Your task to perform on an android device: Open Android settings Image 0: 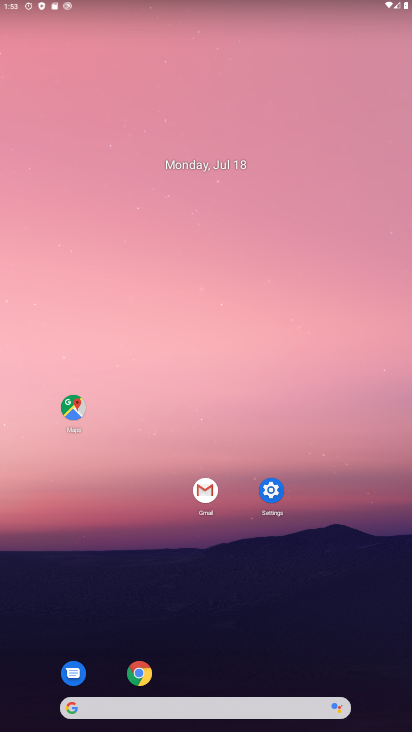
Step 0: press home button
Your task to perform on an android device: Open Android settings Image 1: 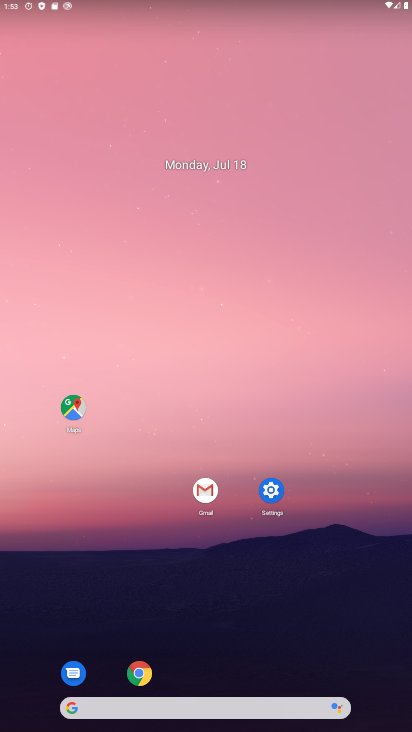
Step 1: click (269, 503)
Your task to perform on an android device: Open Android settings Image 2: 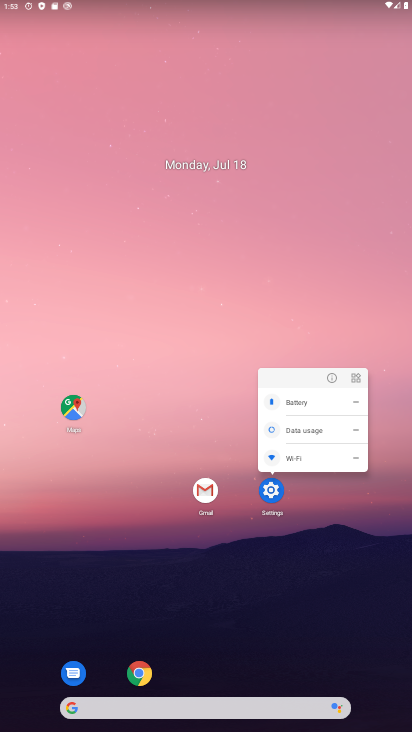
Step 2: click (273, 491)
Your task to perform on an android device: Open Android settings Image 3: 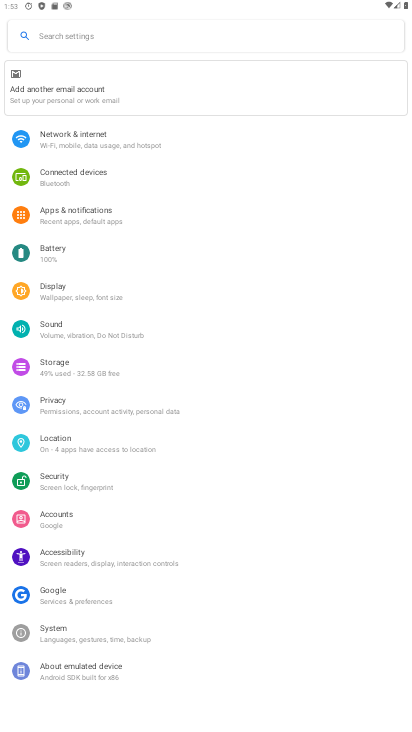
Step 3: click (85, 36)
Your task to perform on an android device: Open Android settings Image 4: 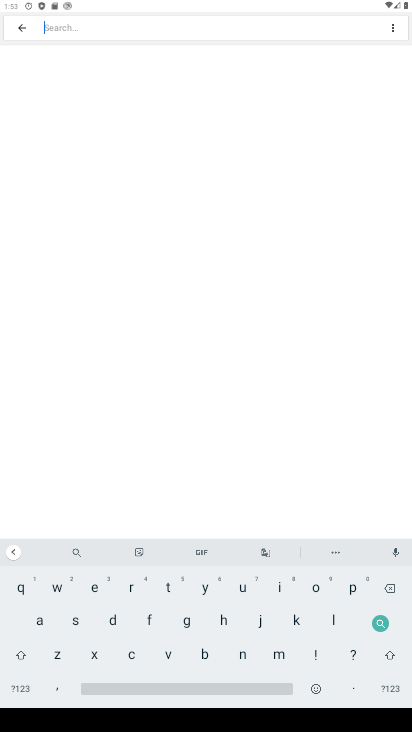
Step 4: click (33, 624)
Your task to perform on an android device: Open Android settings Image 5: 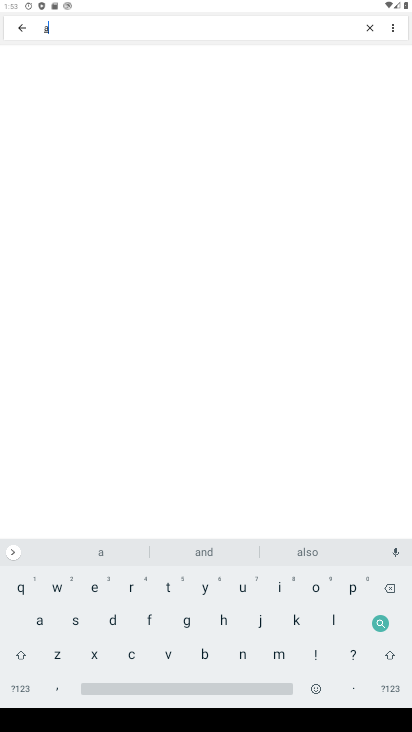
Step 5: click (243, 648)
Your task to perform on an android device: Open Android settings Image 6: 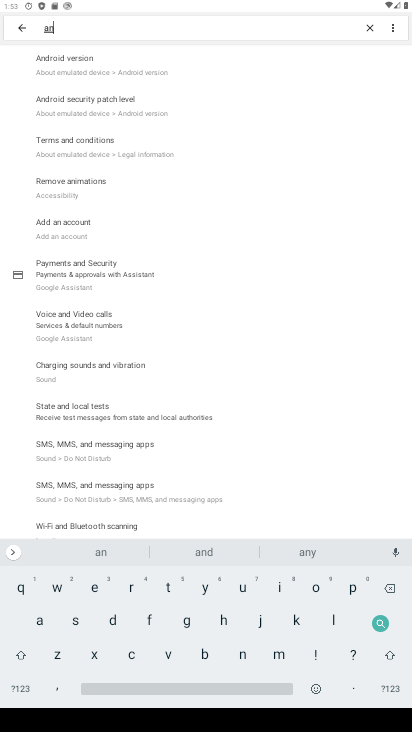
Step 6: click (124, 64)
Your task to perform on an android device: Open Android settings Image 7: 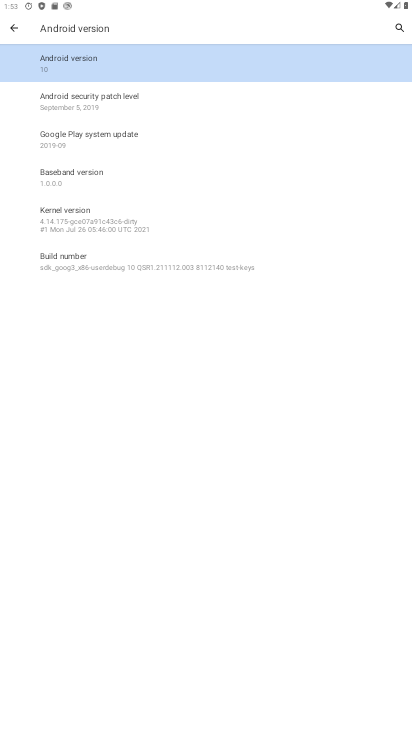
Step 7: click (92, 54)
Your task to perform on an android device: Open Android settings Image 8: 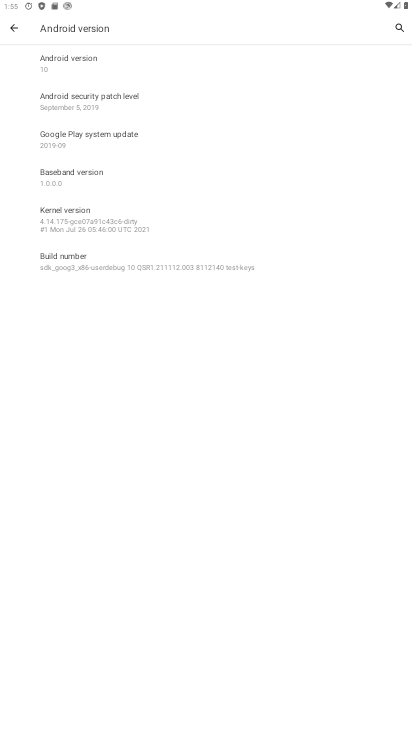
Step 8: click (104, 73)
Your task to perform on an android device: Open Android settings Image 9: 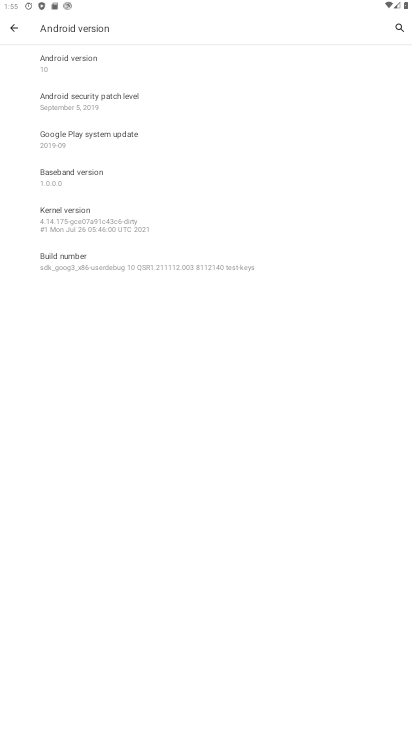
Step 9: task complete